Your task to perform on an android device: Open Google Chrome Image 0: 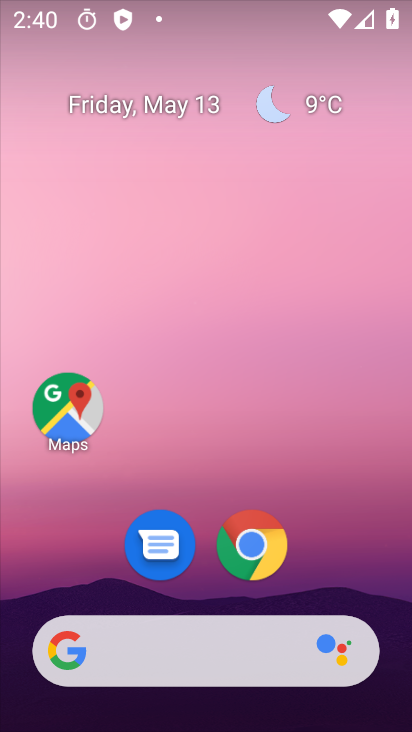
Step 0: click (272, 554)
Your task to perform on an android device: Open Google Chrome Image 1: 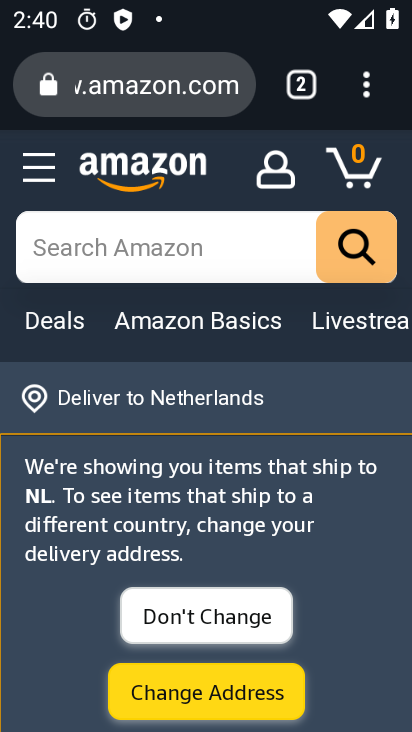
Step 1: task complete